Your task to perform on an android device: Go to CNN.com Image 0: 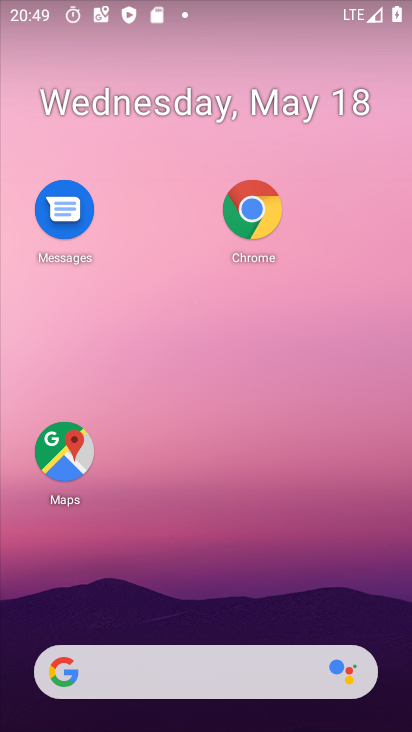
Step 0: click (184, 661)
Your task to perform on an android device: Go to CNN.com Image 1: 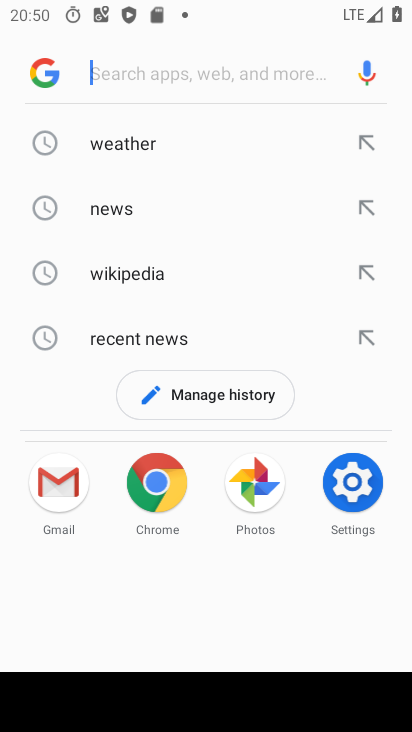
Step 1: type "cnn.com"
Your task to perform on an android device: Go to CNN.com Image 2: 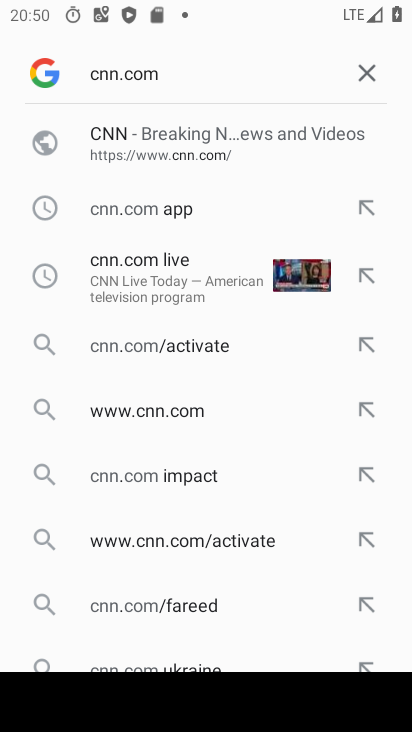
Step 2: click (239, 149)
Your task to perform on an android device: Go to CNN.com Image 3: 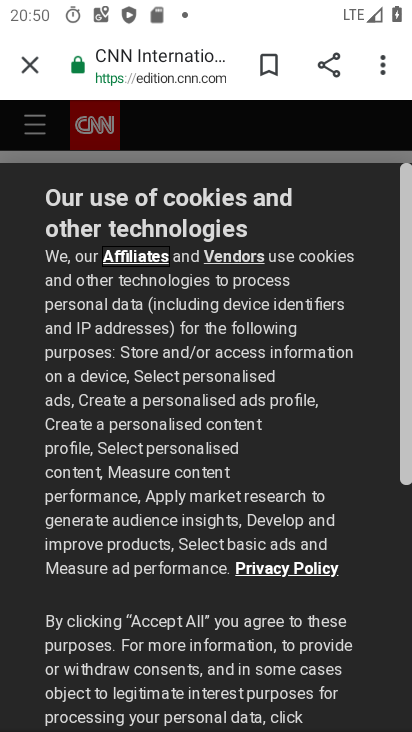
Step 3: task complete